Your task to perform on an android device: Turn off the flashlight Image 0: 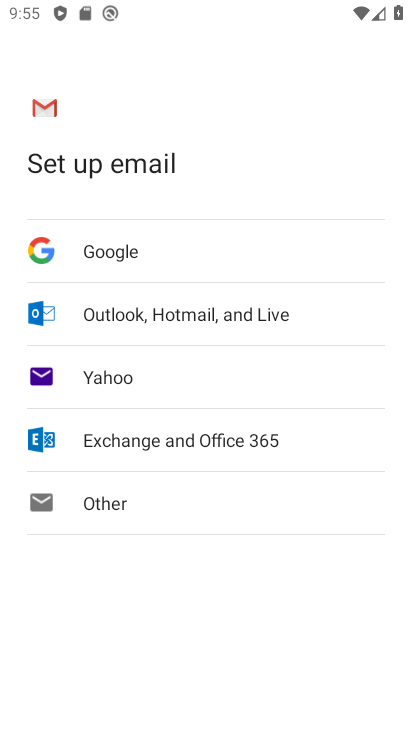
Step 0: press home button
Your task to perform on an android device: Turn off the flashlight Image 1: 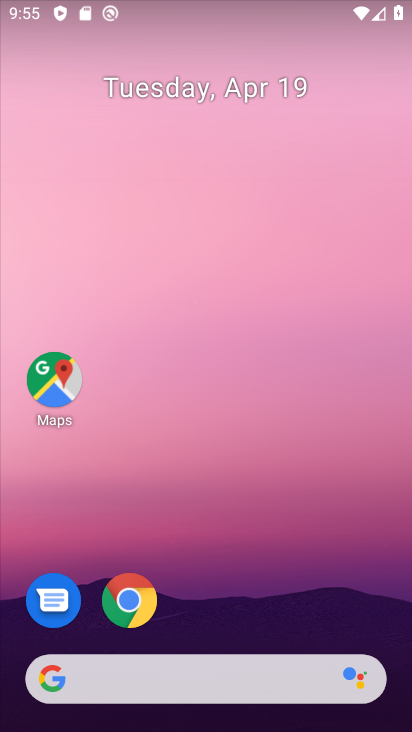
Step 1: drag from (213, 626) to (365, 18)
Your task to perform on an android device: Turn off the flashlight Image 2: 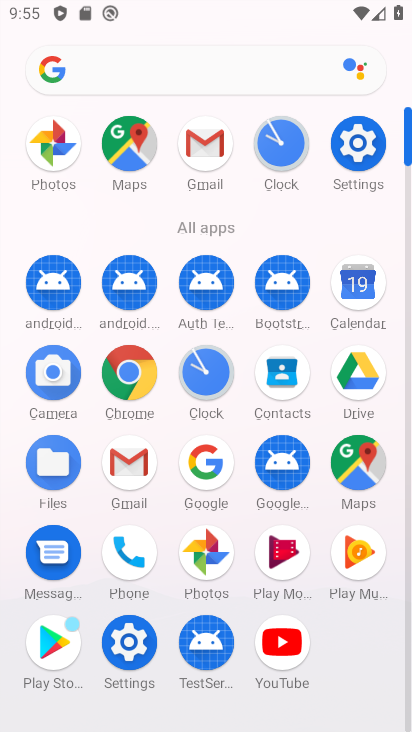
Step 2: click (120, 648)
Your task to perform on an android device: Turn off the flashlight Image 3: 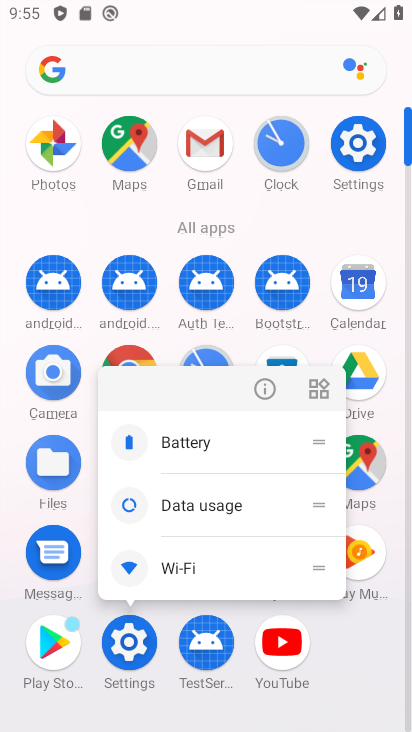
Step 3: click (141, 653)
Your task to perform on an android device: Turn off the flashlight Image 4: 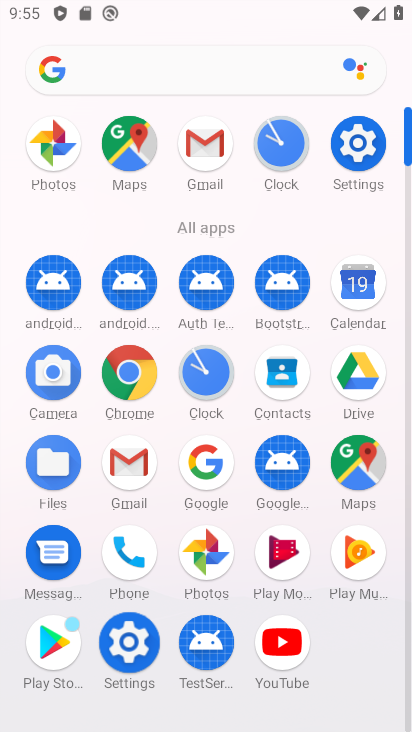
Step 4: click (141, 652)
Your task to perform on an android device: Turn off the flashlight Image 5: 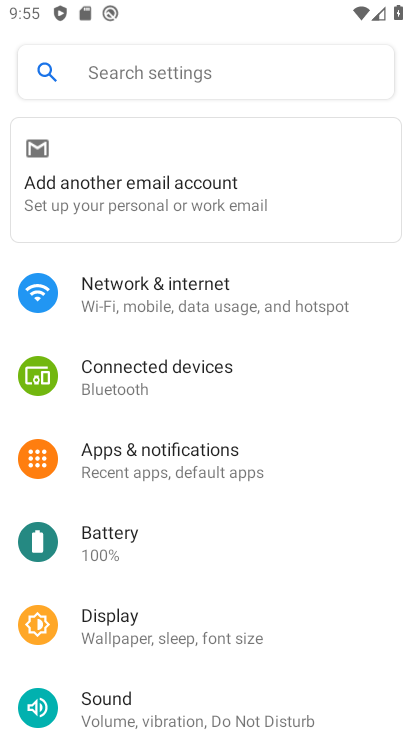
Step 5: click (209, 70)
Your task to perform on an android device: Turn off the flashlight Image 6: 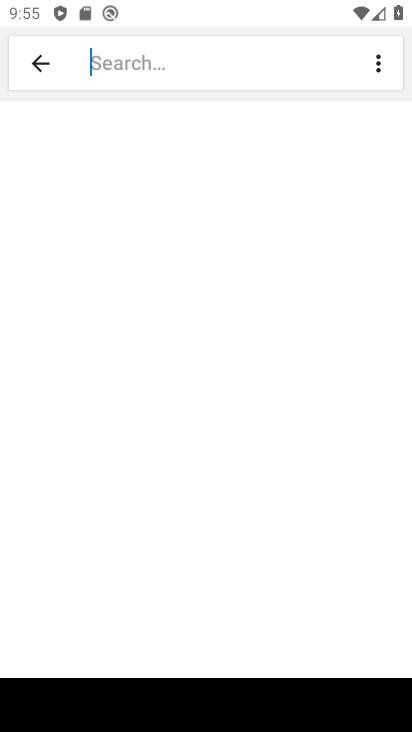
Step 6: type "flashlight"
Your task to perform on an android device: Turn off the flashlight Image 7: 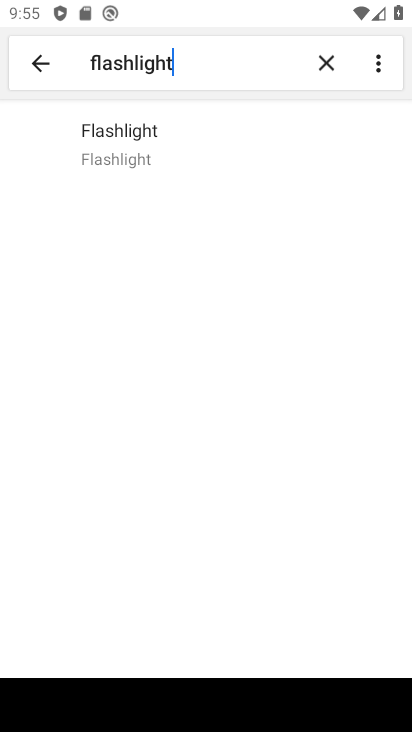
Step 7: click (111, 125)
Your task to perform on an android device: Turn off the flashlight Image 8: 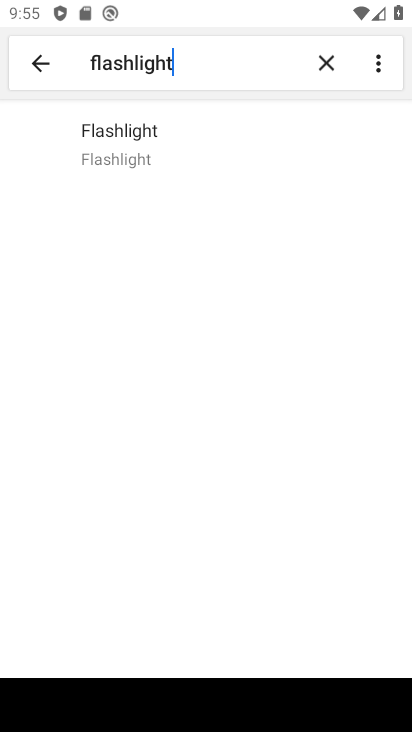
Step 8: click (111, 126)
Your task to perform on an android device: Turn off the flashlight Image 9: 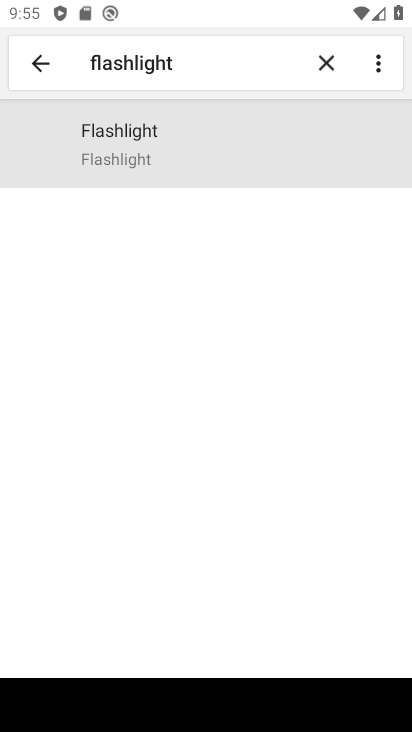
Step 9: click (345, 154)
Your task to perform on an android device: Turn off the flashlight Image 10: 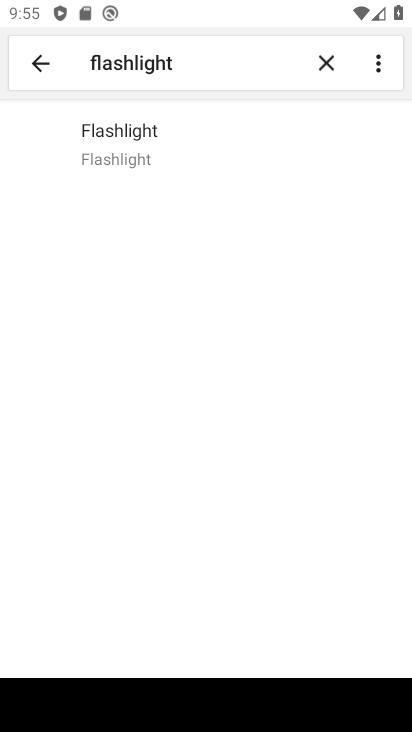
Step 10: task complete